Your task to perform on an android device: Turn on the flashlight Image 0: 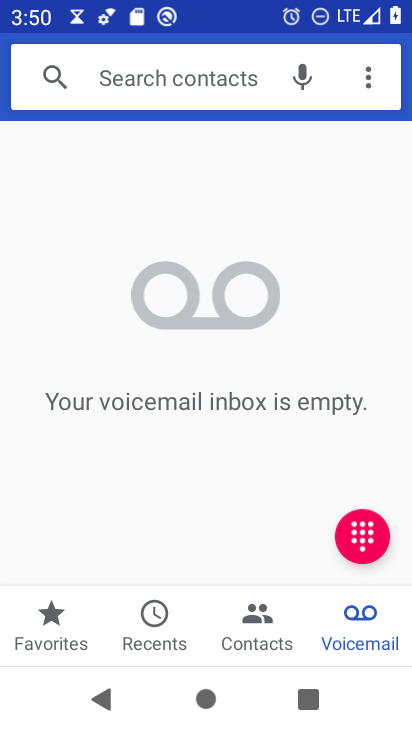
Step 0: press home button
Your task to perform on an android device: Turn on the flashlight Image 1: 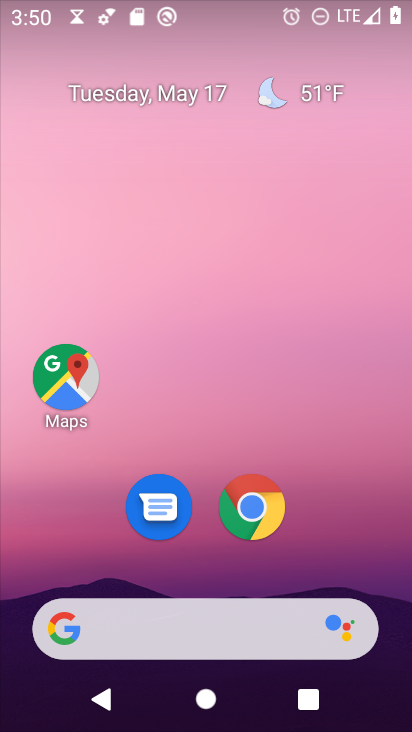
Step 1: drag from (304, 570) to (314, 59)
Your task to perform on an android device: Turn on the flashlight Image 2: 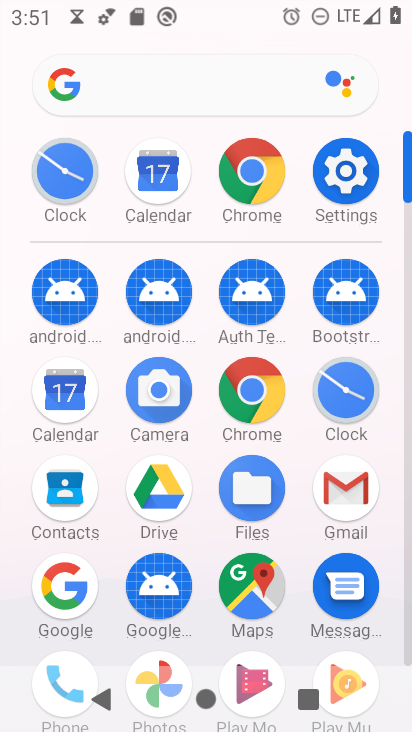
Step 2: click (352, 177)
Your task to perform on an android device: Turn on the flashlight Image 3: 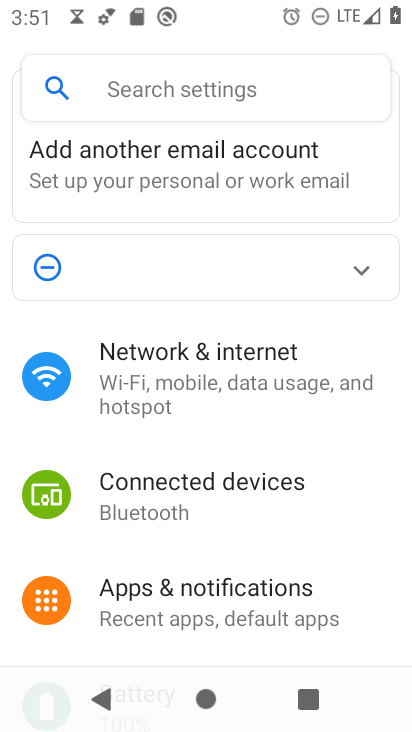
Step 3: task complete